Your task to perform on an android device: turn notification dots on Image 0: 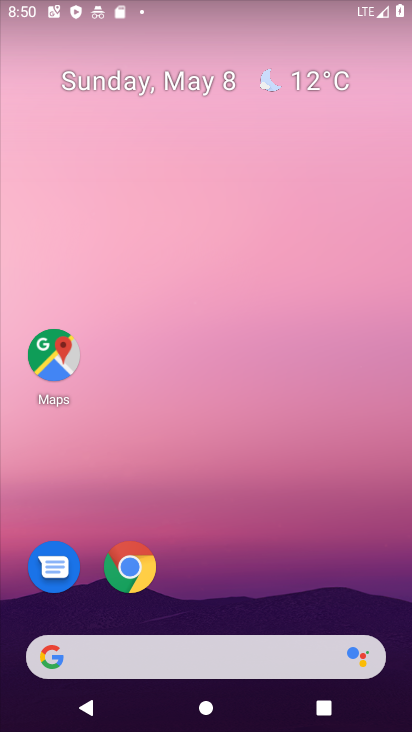
Step 0: drag from (249, 643) to (172, 112)
Your task to perform on an android device: turn notification dots on Image 1: 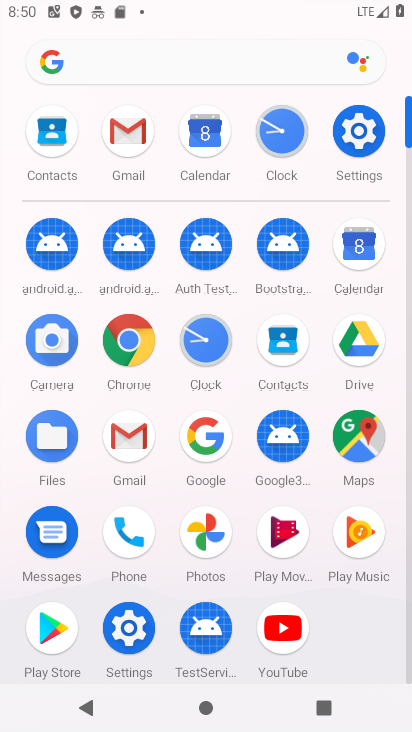
Step 1: click (364, 124)
Your task to perform on an android device: turn notification dots on Image 2: 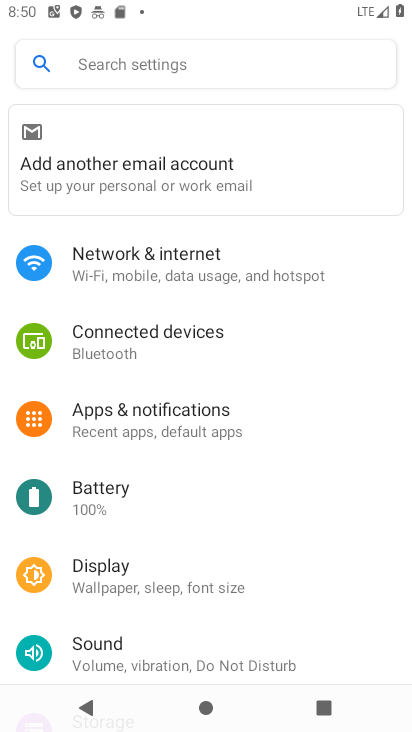
Step 2: click (167, 450)
Your task to perform on an android device: turn notification dots on Image 3: 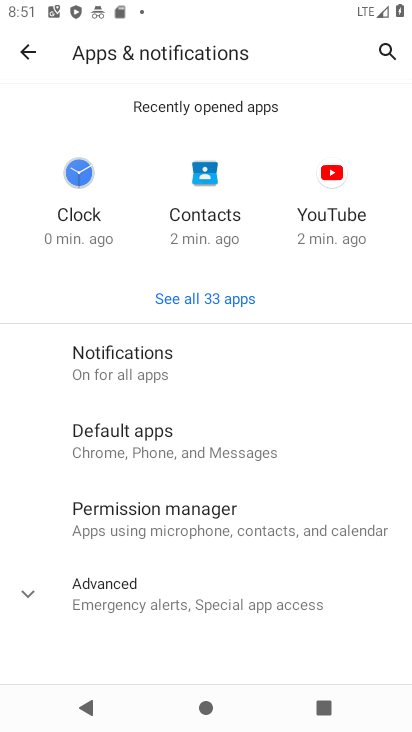
Step 3: click (177, 361)
Your task to perform on an android device: turn notification dots on Image 4: 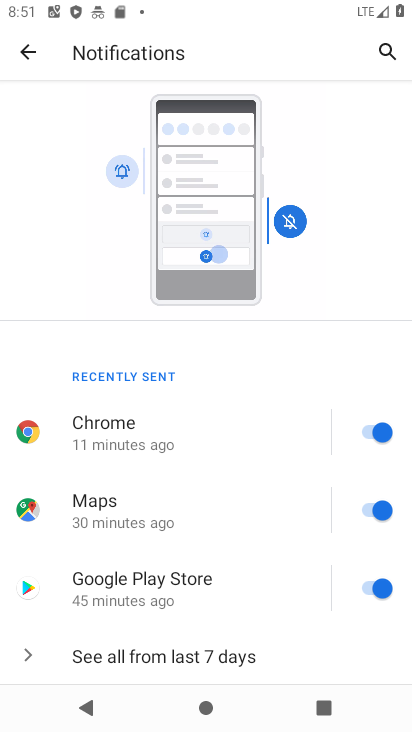
Step 4: click (177, 361)
Your task to perform on an android device: turn notification dots on Image 5: 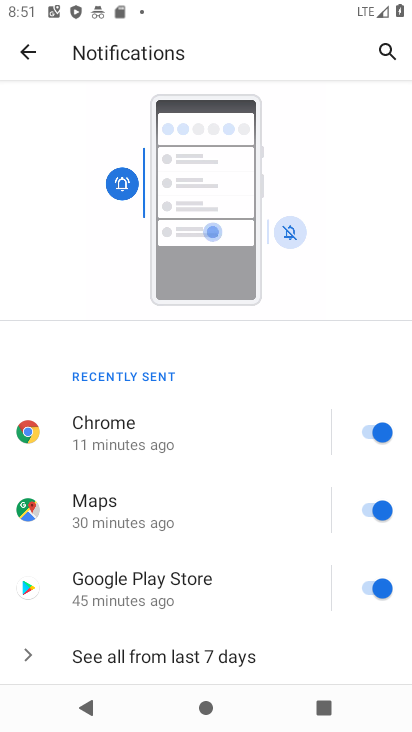
Step 5: drag from (160, 650) to (166, 247)
Your task to perform on an android device: turn notification dots on Image 6: 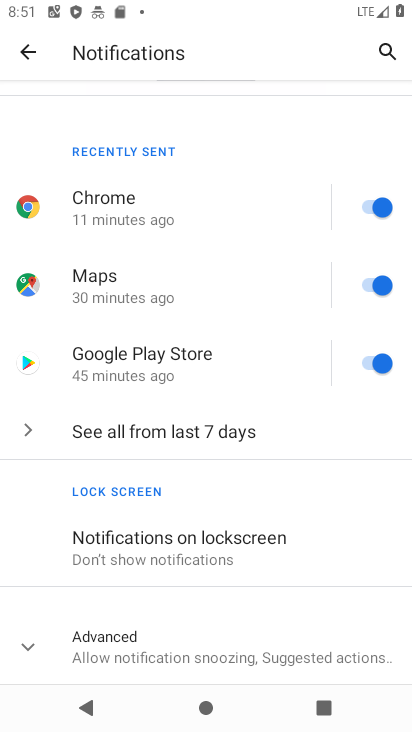
Step 6: click (157, 646)
Your task to perform on an android device: turn notification dots on Image 7: 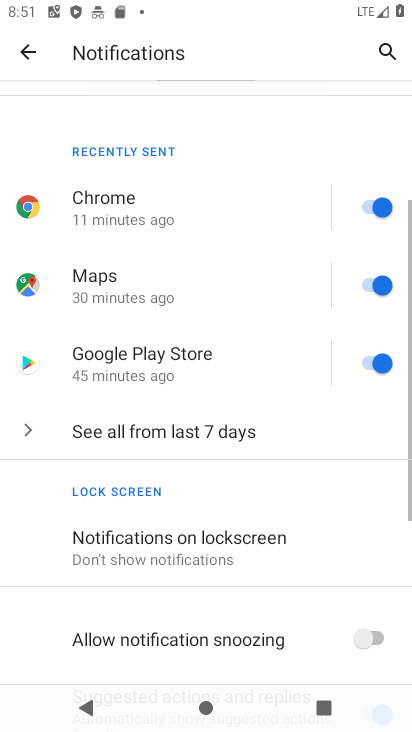
Step 7: drag from (250, 629) to (250, 185)
Your task to perform on an android device: turn notification dots on Image 8: 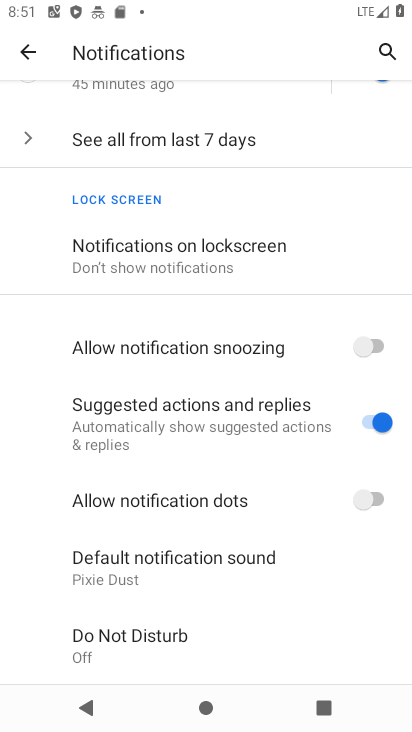
Step 8: click (364, 490)
Your task to perform on an android device: turn notification dots on Image 9: 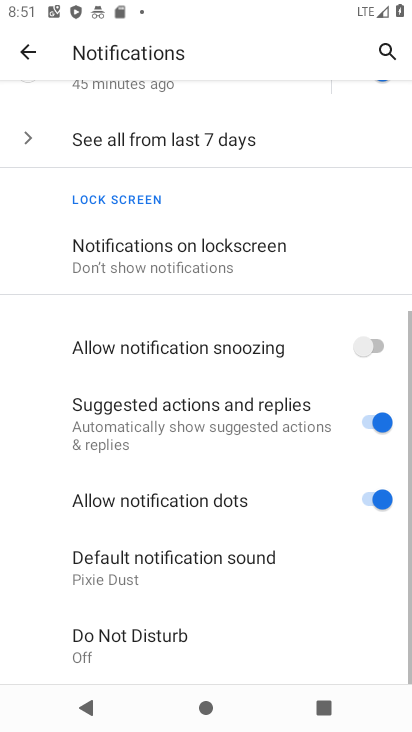
Step 9: task complete